Your task to perform on an android device: toggle notifications settings in the gmail app Image 0: 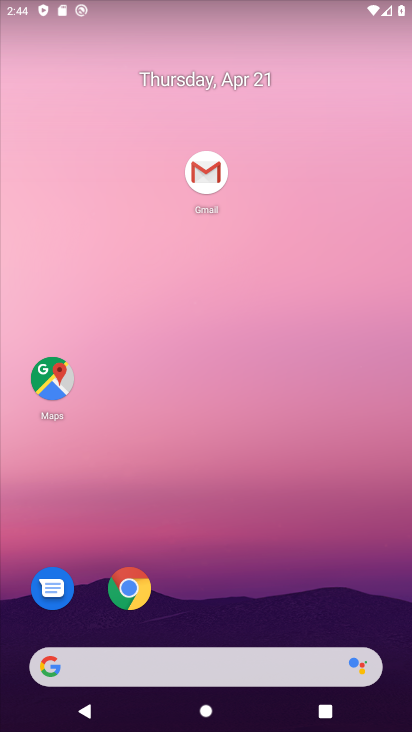
Step 0: drag from (305, 588) to (339, 207)
Your task to perform on an android device: toggle notifications settings in the gmail app Image 1: 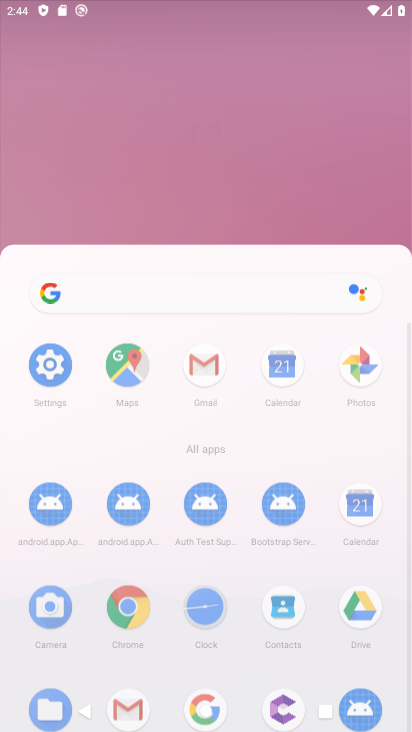
Step 1: click (339, 172)
Your task to perform on an android device: toggle notifications settings in the gmail app Image 2: 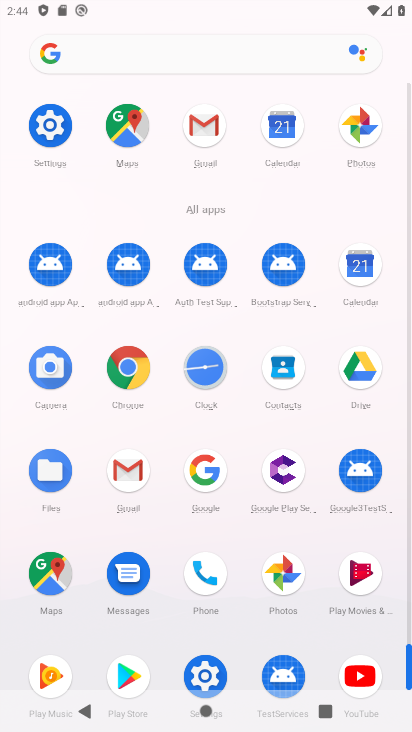
Step 2: click (206, 127)
Your task to perform on an android device: toggle notifications settings in the gmail app Image 3: 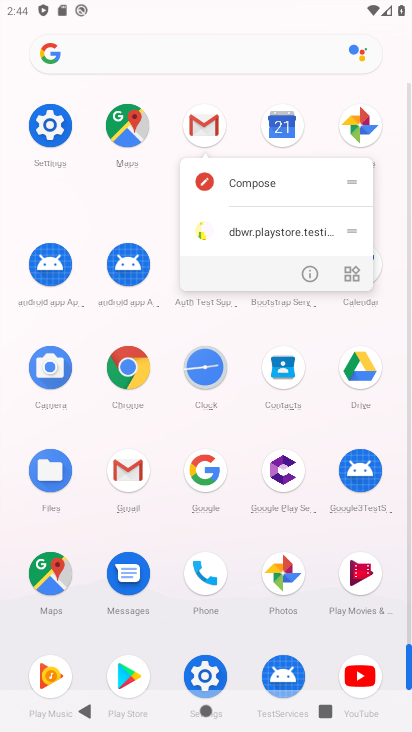
Step 3: click (309, 268)
Your task to perform on an android device: toggle notifications settings in the gmail app Image 4: 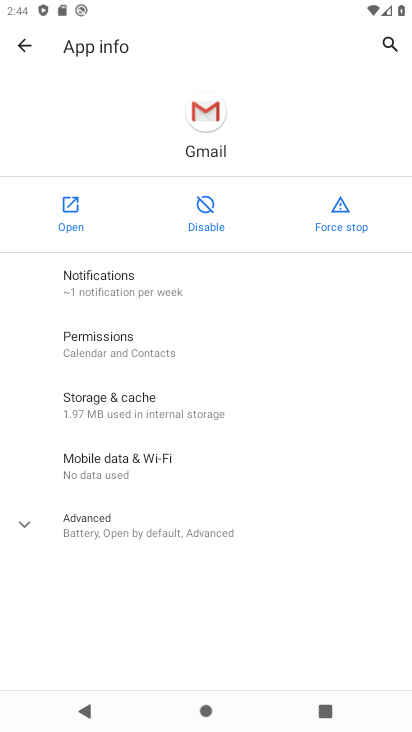
Step 4: click (116, 287)
Your task to perform on an android device: toggle notifications settings in the gmail app Image 5: 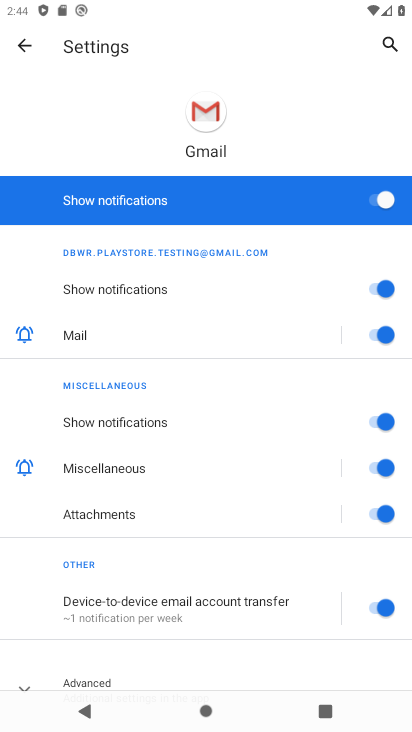
Step 5: click (367, 195)
Your task to perform on an android device: toggle notifications settings in the gmail app Image 6: 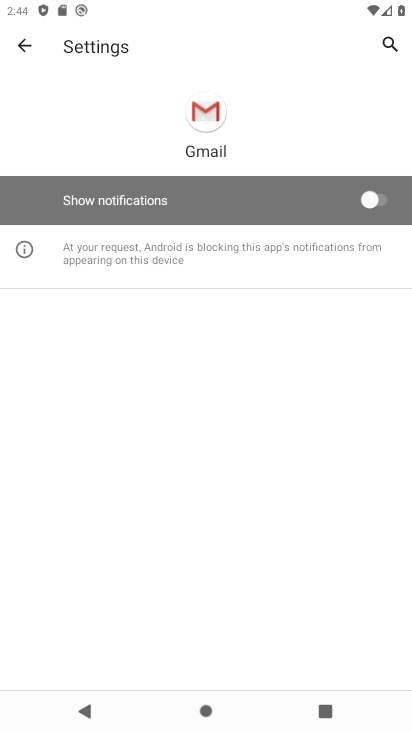
Step 6: task complete